Your task to perform on an android device: What's the weather going to be this weekend? Image 0: 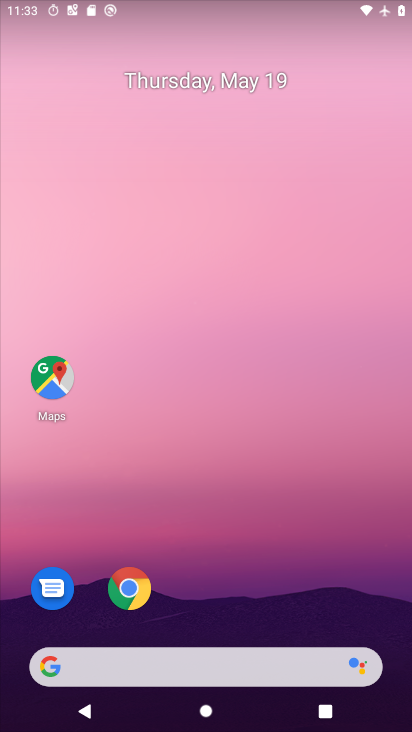
Step 0: press home button
Your task to perform on an android device: What's the weather going to be this weekend? Image 1: 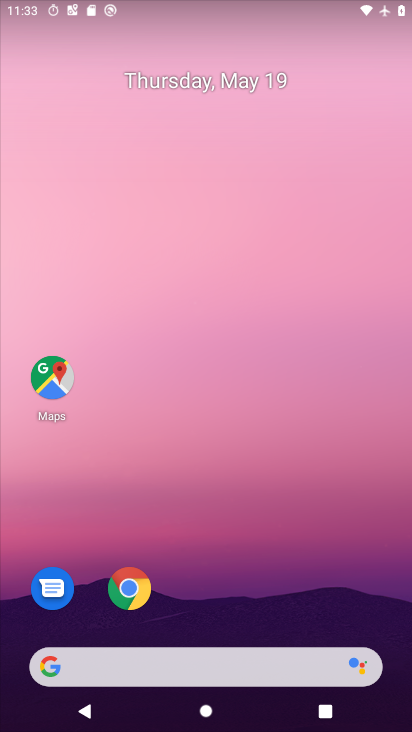
Step 1: click (54, 674)
Your task to perform on an android device: What's the weather going to be this weekend? Image 2: 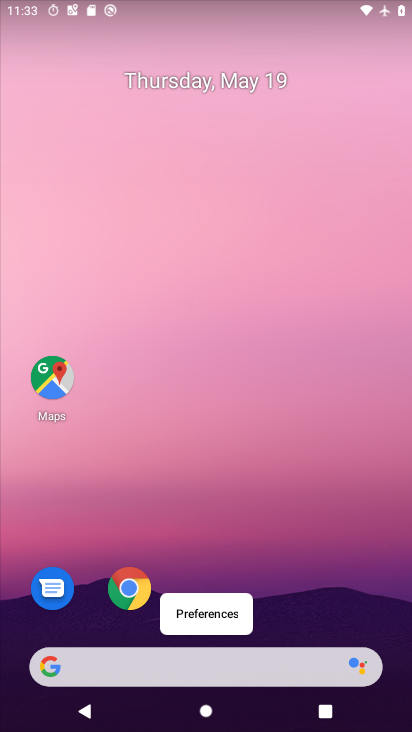
Step 2: click (54, 668)
Your task to perform on an android device: What's the weather going to be this weekend? Image 3: 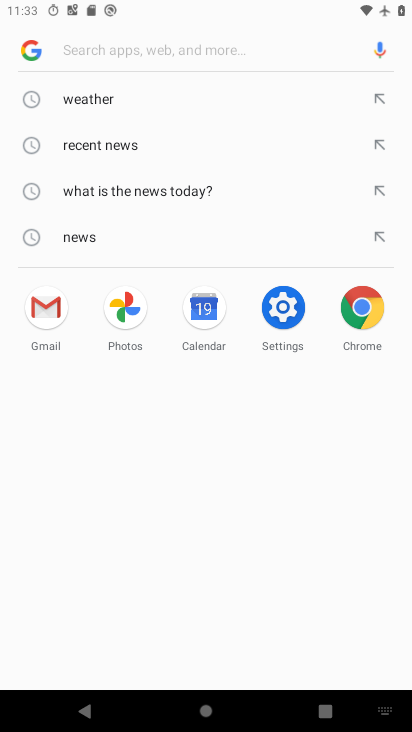
Step 3: click (84, 100)
Your task to perform on an android device: What's the weather going to be this weekend? Image 4: 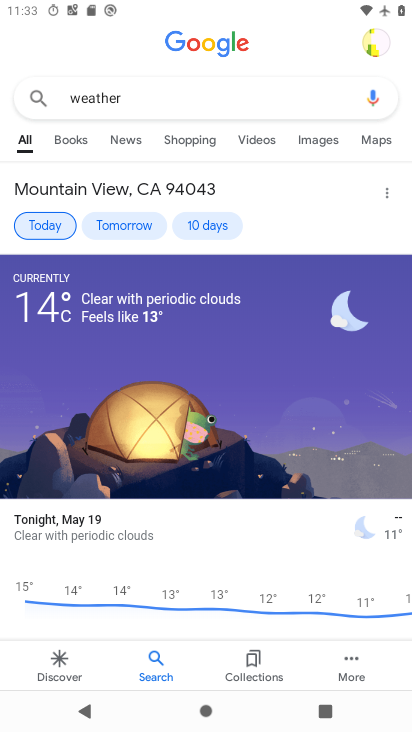
Step 4: click (208, 224)
Your task to perform on an android device: What's the weather going to be this weekend? Image 5: 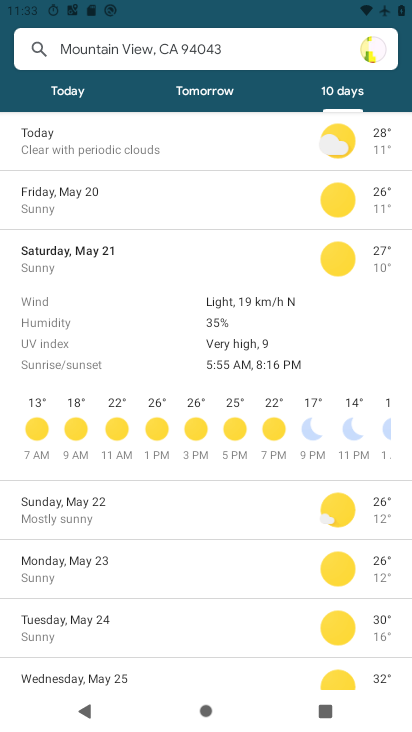
Step 5: task complete